Your task to perform on an android device: delete location history Image 0: 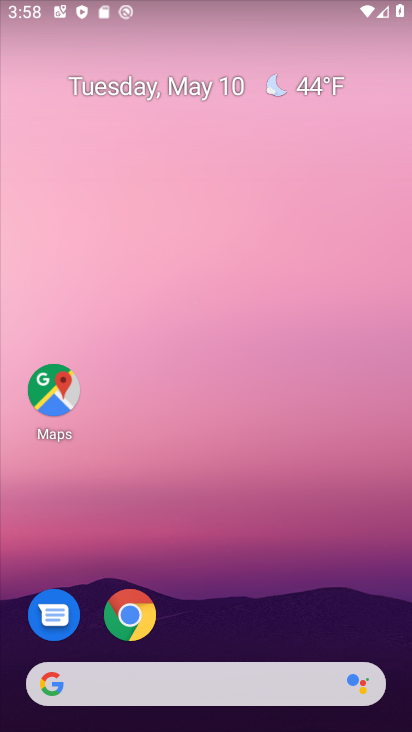
Step 0: drag from (221, 714) to (212, 155)
Your task to perform on an android device: delete location history Image 1: 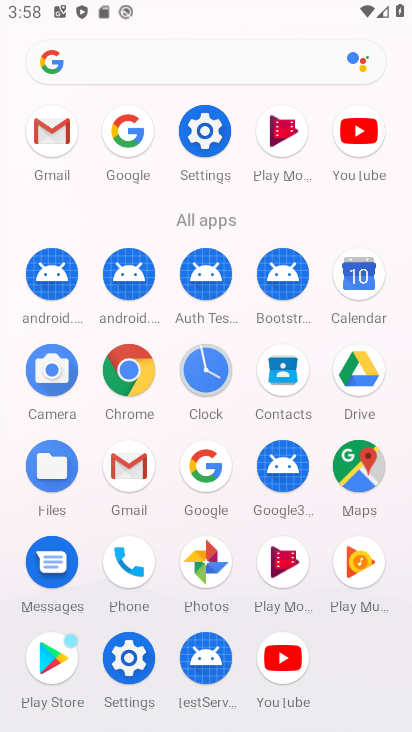
Step 1: click (361, 456)
Your task to perform on an android device: delete location history Image 2: 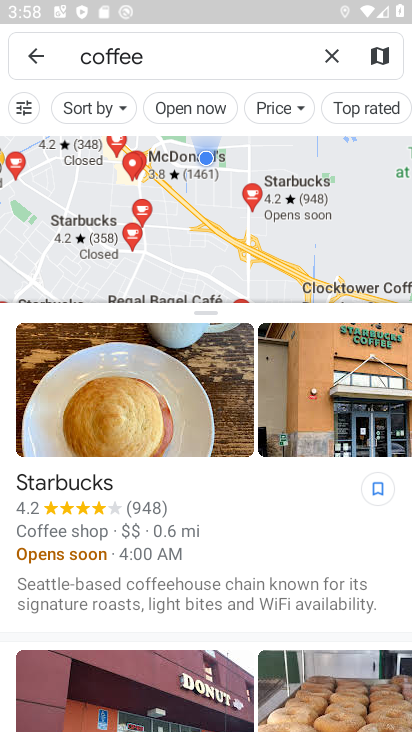
Step 2: click (32, 52)
Your task to perform on an android device: delete location history Image 3: 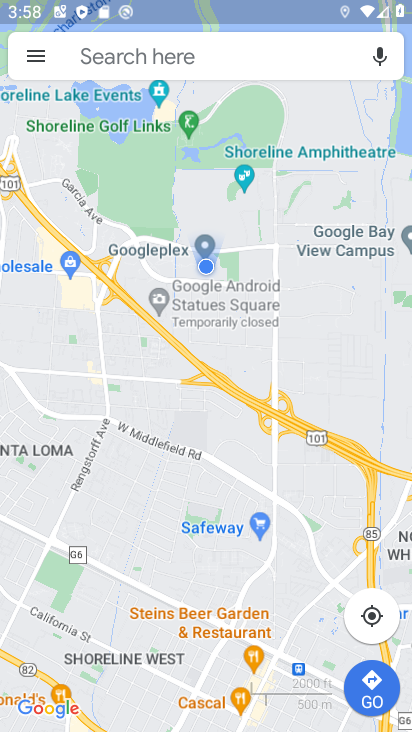
Step 3: click (35, 56)
Your task to perform on an android device: delete location history Image 4: 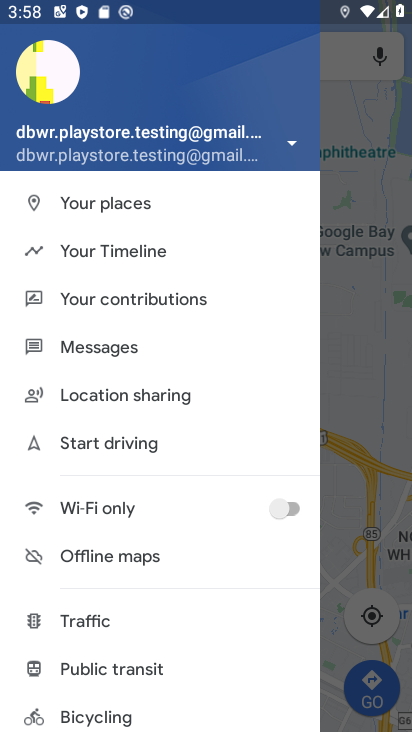
Step 4: click (85, 253)
Your task to perform on an android device: delete location history Image 5: 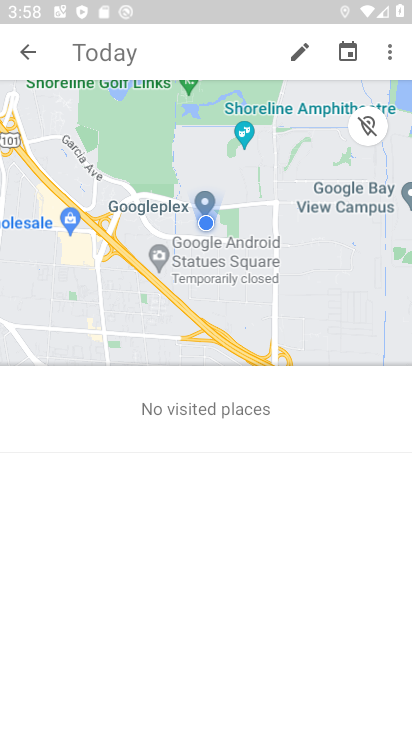
Step 5: click (390, 51)
Your task to perform on an android device: delete location history Image 6: 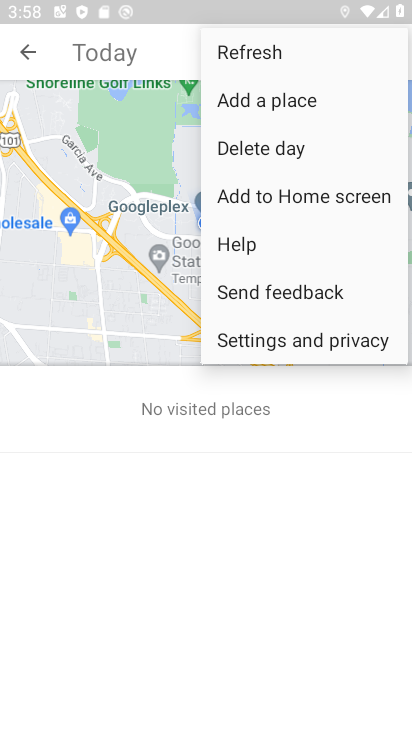
Step 6: click (289, 336)
Your task to perform on an android device: delete location history Image 7: 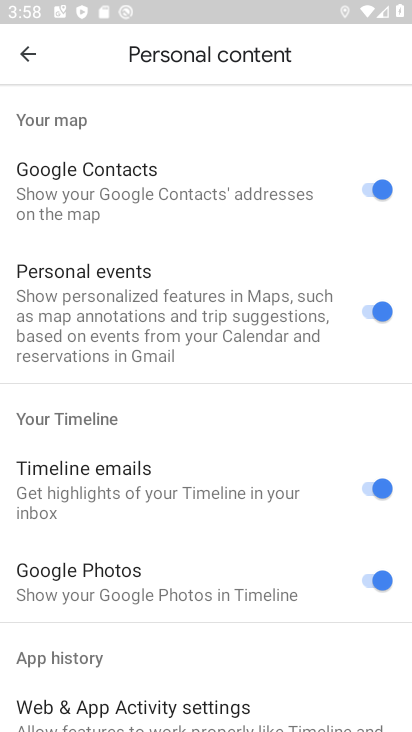
Step 7: drag from (186, 671) to (201, 189)
Your task to perform on an android device: delete location history Image 8: 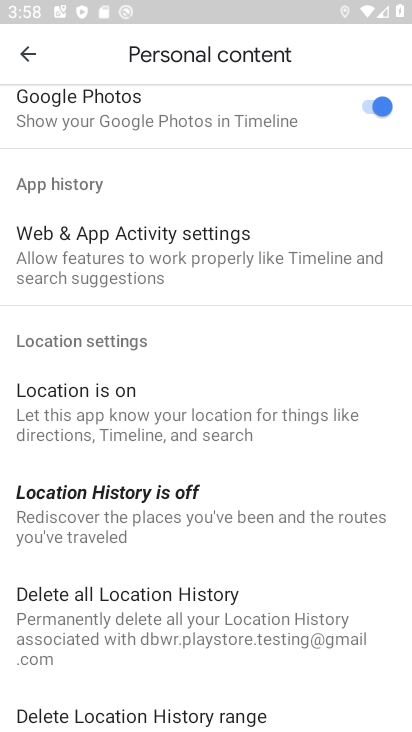
Step 8: click (156, 593)
Your task to perform on an android device: delete location history Image 9: 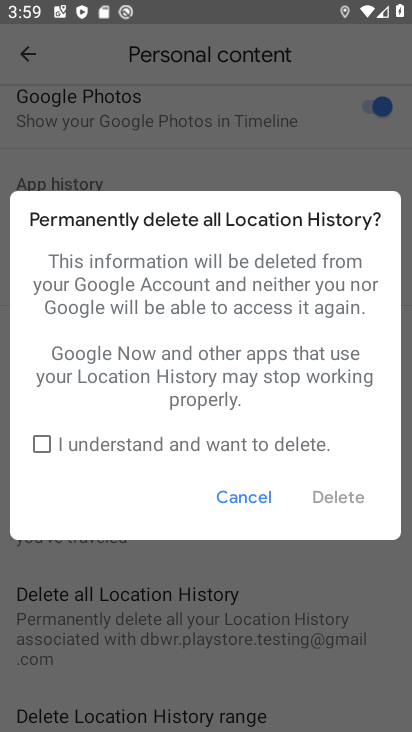
Step 9: click (39, 447)
Your task to perform on an android device: delete location history Image 10: 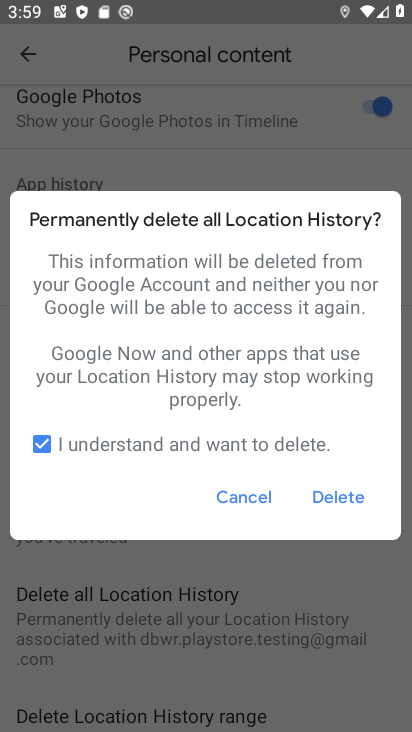
Step 10: click (345, 496)
Your task to perform on an android device: delete location history Image 11: 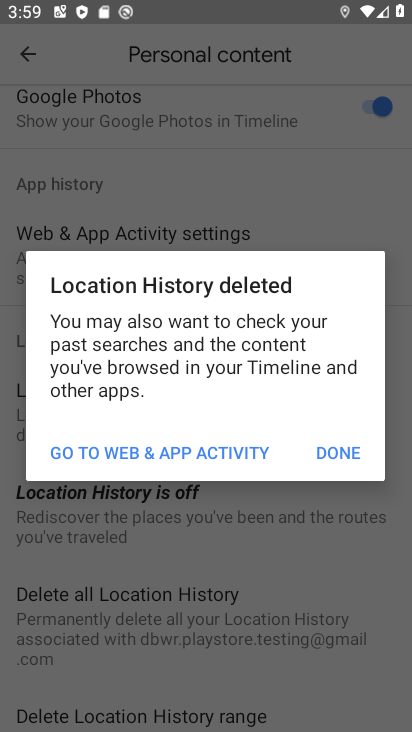
Step 11: click (329, 454)
Your task to perform on an android device: delete location history Image 12: 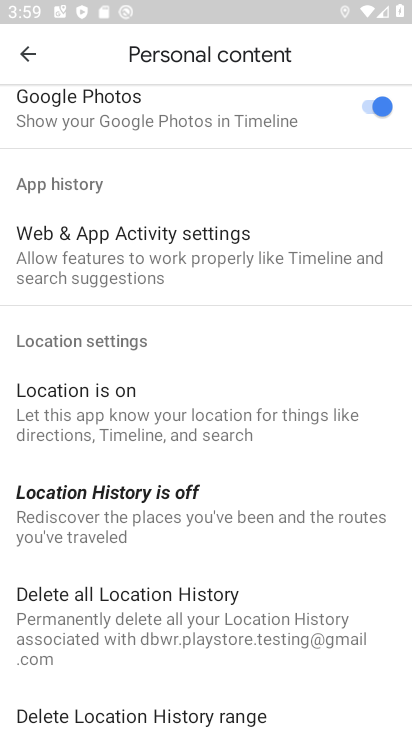
Step 12: task complete